Your task to perform on an android device: Go to battery settings Image 0: 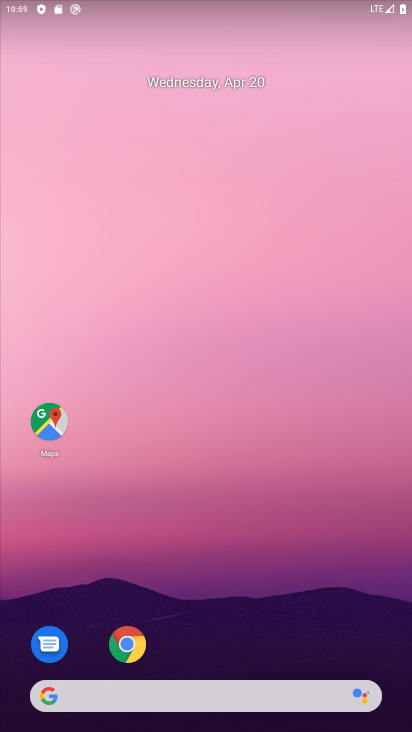
Step 0: drag from (331, 591) to (288, 127)
Your task to perform on an android device: Go to battery settings Image 1: 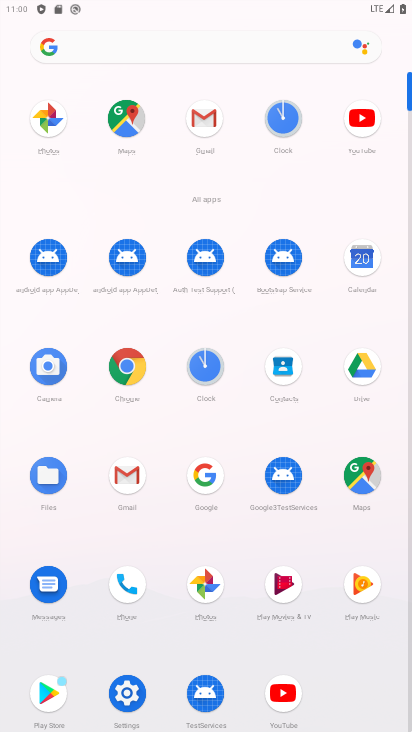
Step 1: drag from (200, 148) to (201, 60)
Your task to perform on an android device: Go to battery settings Image 2: 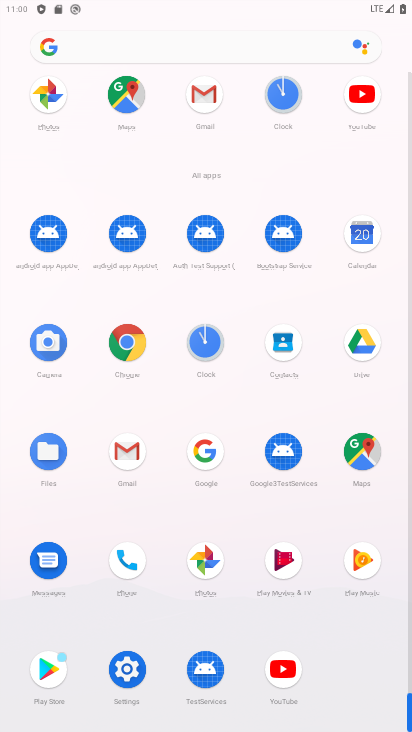
Step 2: click (131, 688)
Your task to perform on an android device: Go to battery settings Image 3: 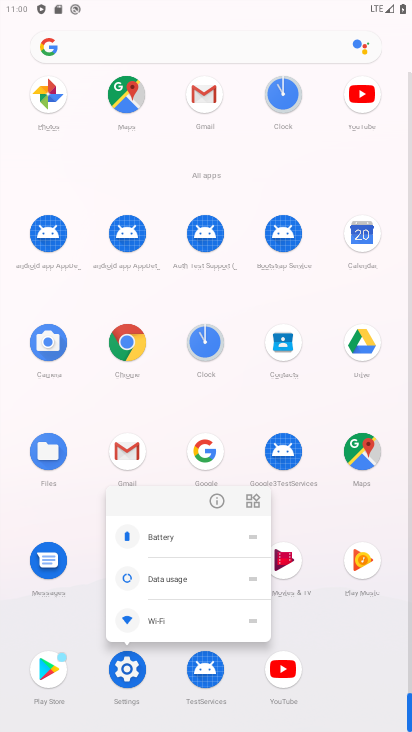
Step 3: click (132, 665)
Your task to perform on an android device: Go to battery settings Image 4: 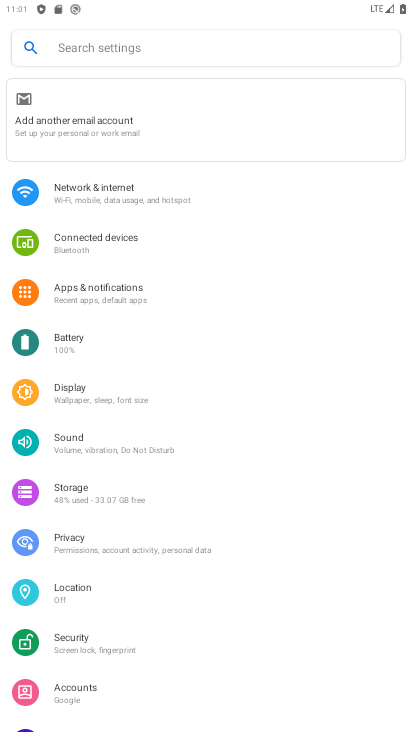
Step 4: click (88, 341)
Your task to perform on an android device: Go to battery settings Image 5: 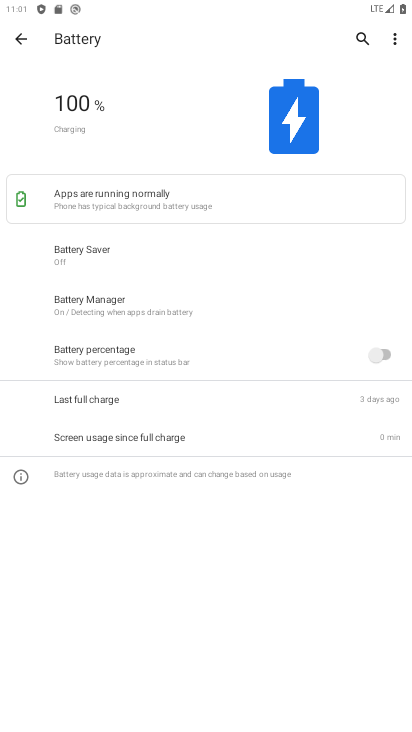
Step 5: task complete